Your task to perform on an android device: turn on location history Image 0: 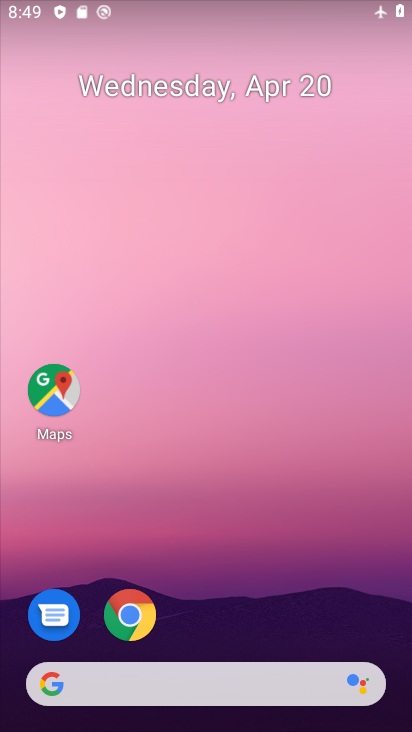
Step 0: drag from (230, 621) to (227, 46)
Your task to perform on an android device: turn on location history Image 1: 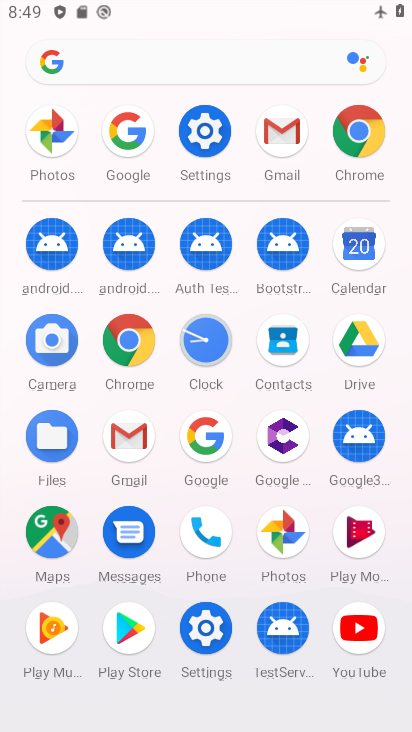
Step 1: click (207, 128)
Your task to perform on an android device: turn on location history Image 2: 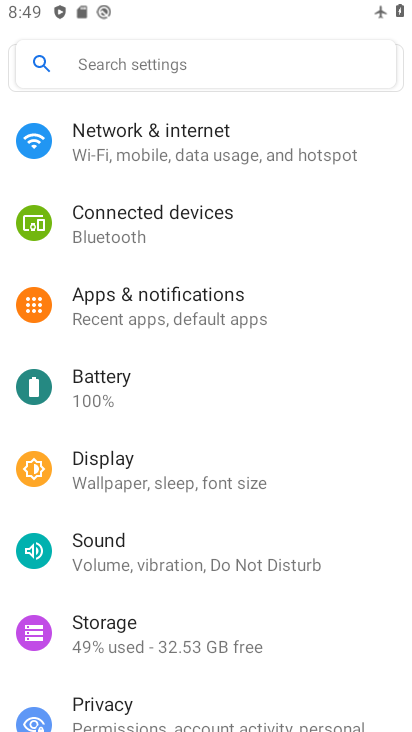
Step 2: drag from (189, 428) to (201, 349)
Your task to perform on an android device: turn on location history Image 3: 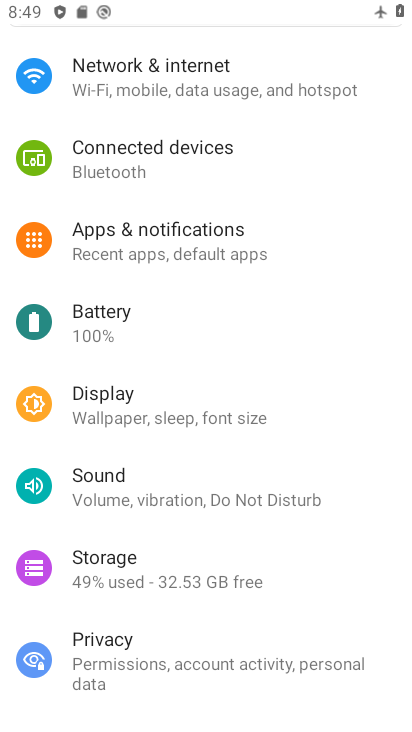
Step 3: drag from (180, 455) to (201, 387)
Your task to perform on an android device: turn on location history Image 4: 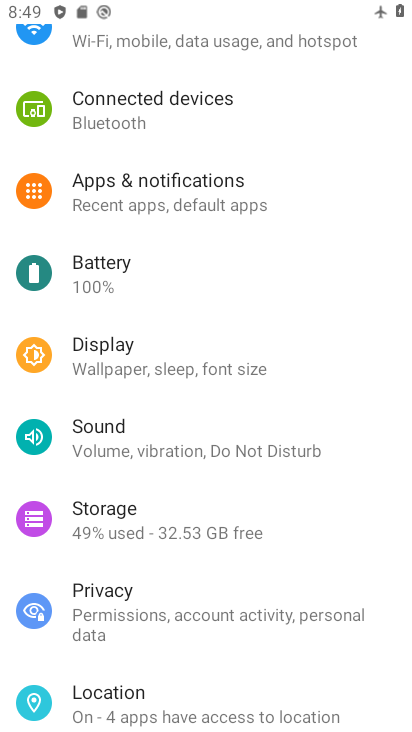
Step 4: drag from (176, 494) to (179, 405)
Your task to perform on an android device: turn on location history Image 5: 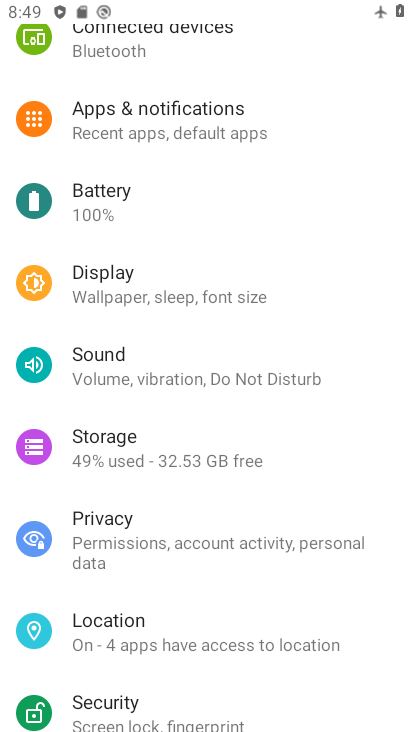
Step 5: drag from (167, 574) to (206, 493)
Your task to perform on an android device: turn on location history Image 6: 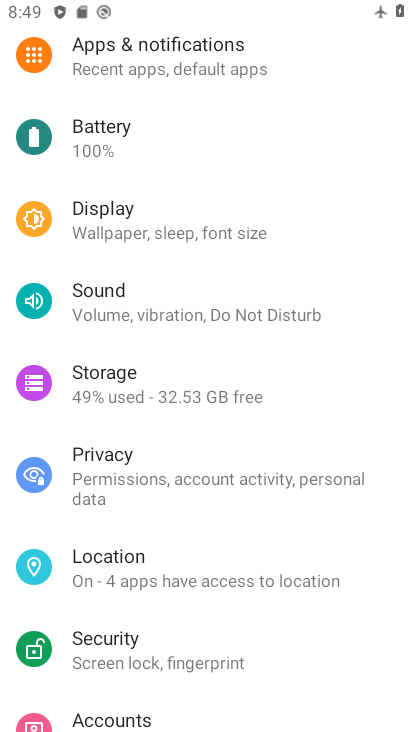
Step 6: click (179, 578)
Your task to perform on an android device: turn on location history Image 7: 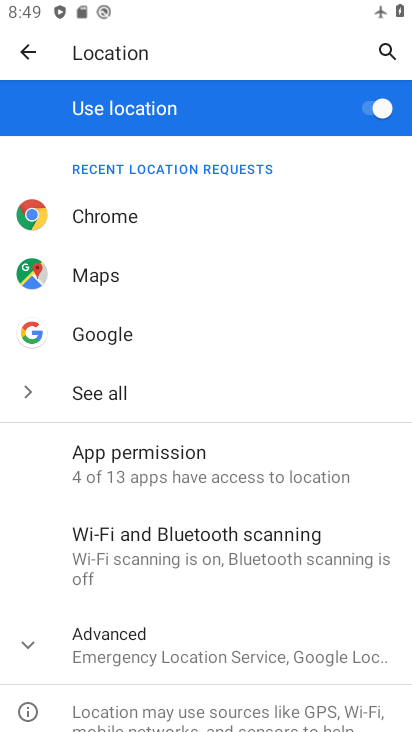
Step 7: click (182, 652)
Your task to perform on an android device: turn on location history Image 8: 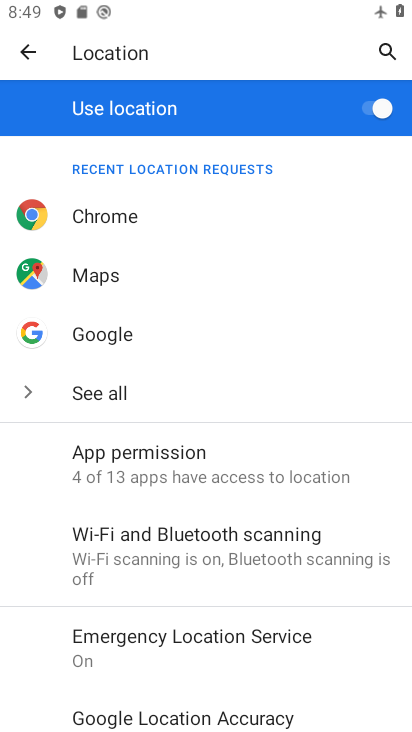
Step 8: drag from (173, 666) to (240, 538)
Your task to perform on an android device: turn on location history Image 9: 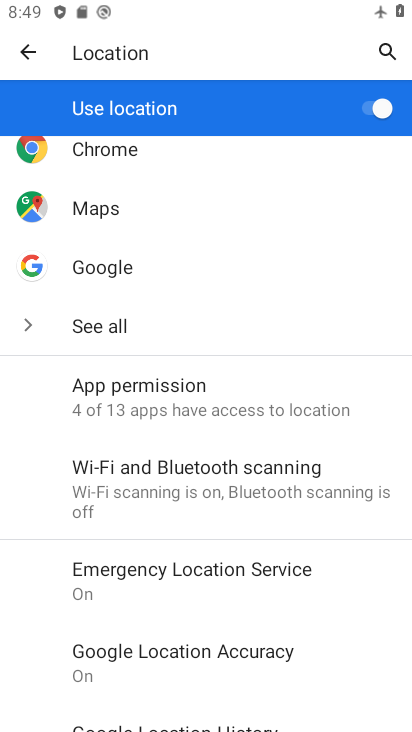
Step 9: drag from (184, 690) to (259, 588)
Your task to perform on an android device: turn on location history Image 10: 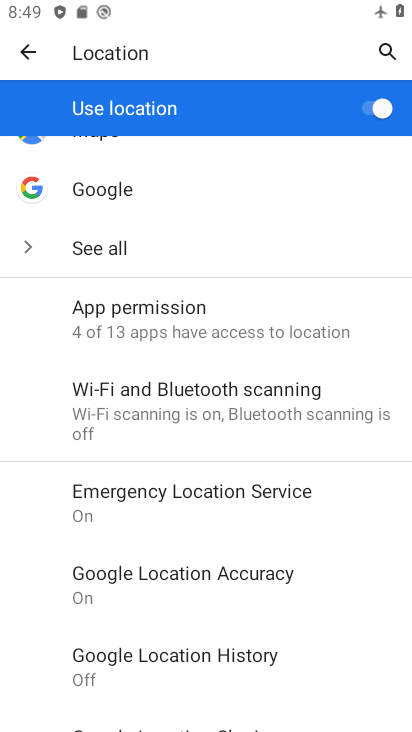
Step 10: drag from (190, 702) to (254, 606)
Your task to perform on an android device: turn on location history Image 11: 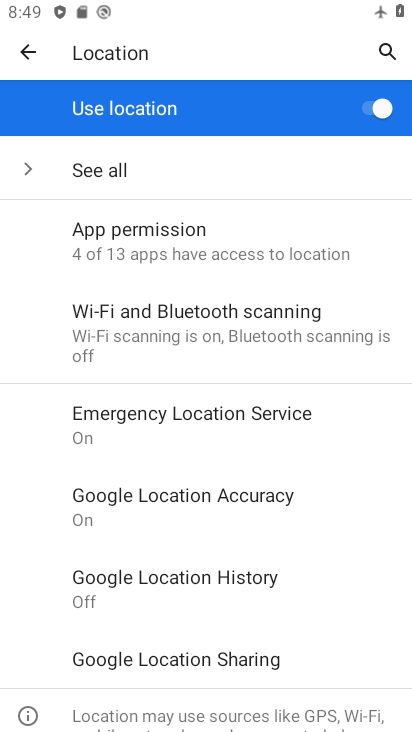
Step 11: click (231, 581)
Your task to perform on an android device: turn on location history Image 12: 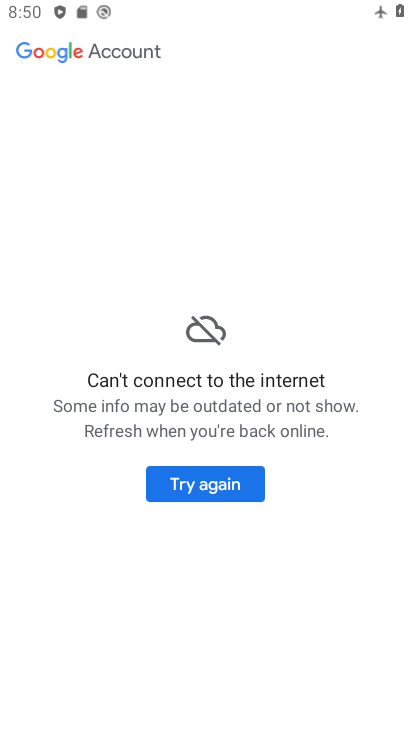
Step 12: task complete